Your task to perform on an android device: set default search engine in the chrome app Image 0: 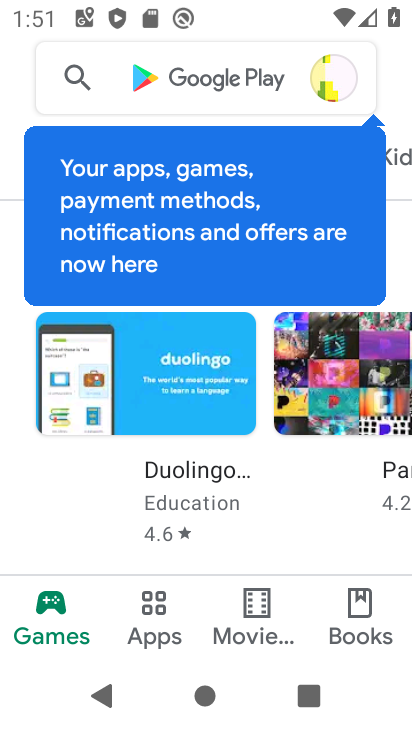
Step 0: press home button
Your task to perform on an android device: set default search engine in the chrome app Image 1: 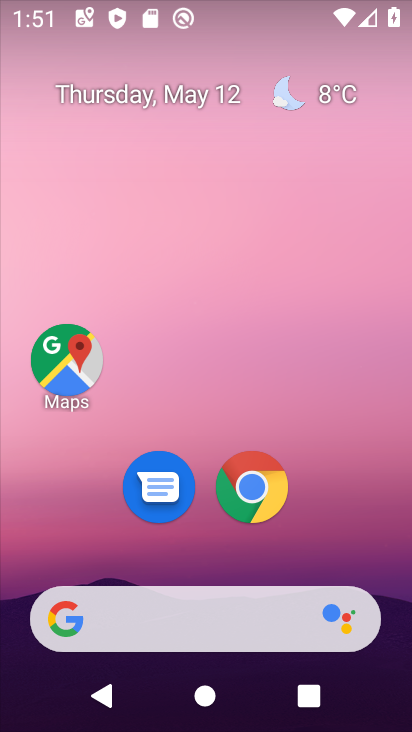
Step 1: click (252, 487)
Your task to perform on an android device: set default search engine in the chrome app Image 2: 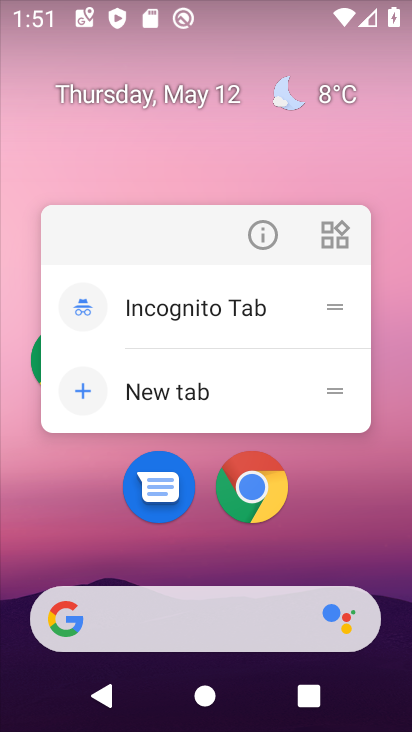
Step 2: click (250, 486)
Your task to perform on an android device: set default search engine in the chrome app Image 3: 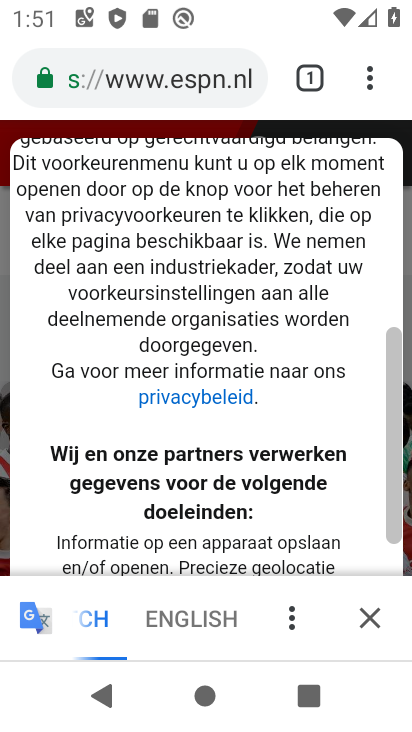
Step 3: click (360, 86)
Your task to perform on an android device: set default search engine in the chrome app Image 4: 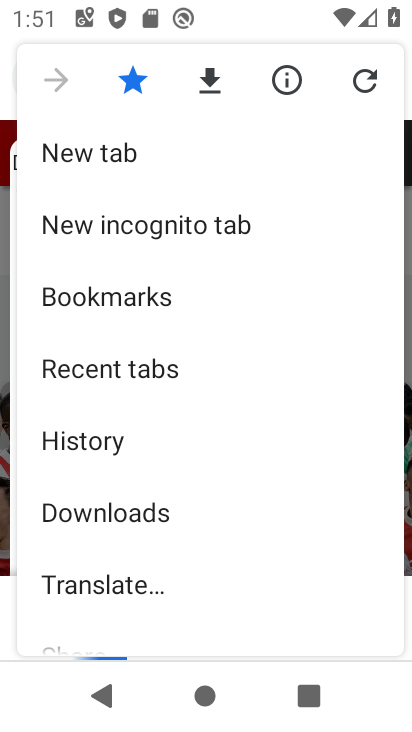
Step 4: drag from (190, 536) to (183, 142)
Your task to perform on an android device: set default search engine in the chrome app Image 5: 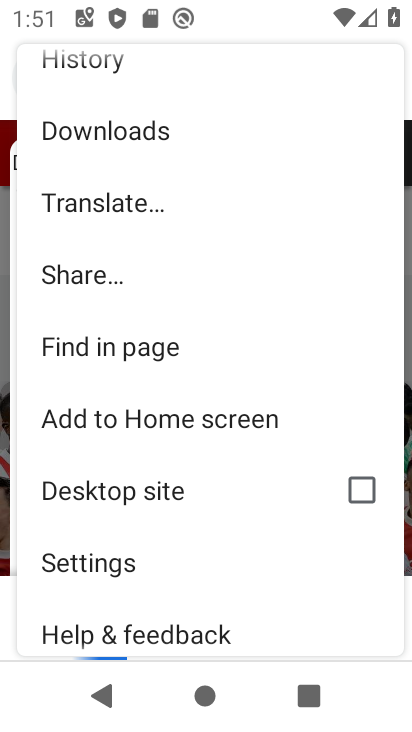
Step 5: click (185, 574)
Your task to perform on an android device: set default search engine in the chrome app Image 6: 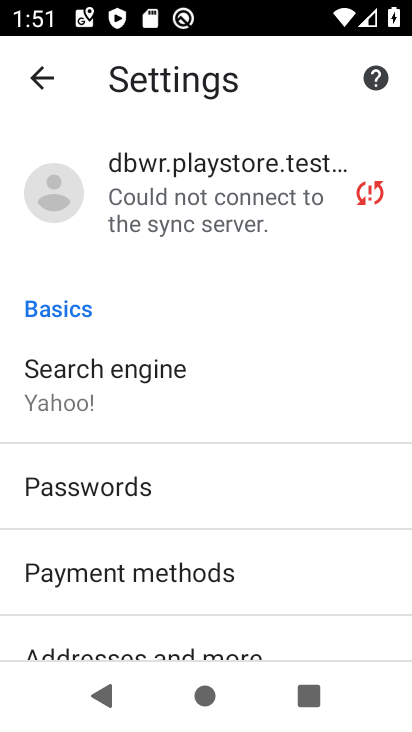
Step 6: click (147, 396)
Your task to perform on an android device: set default search engine in the chrome app Image 7: 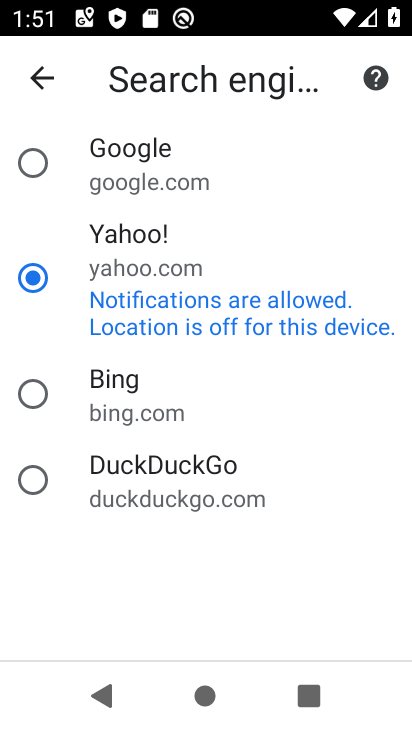
Step 7: click (143, 148)
Your task to perform on an android device: set default search engine in the chrome app Image 8: 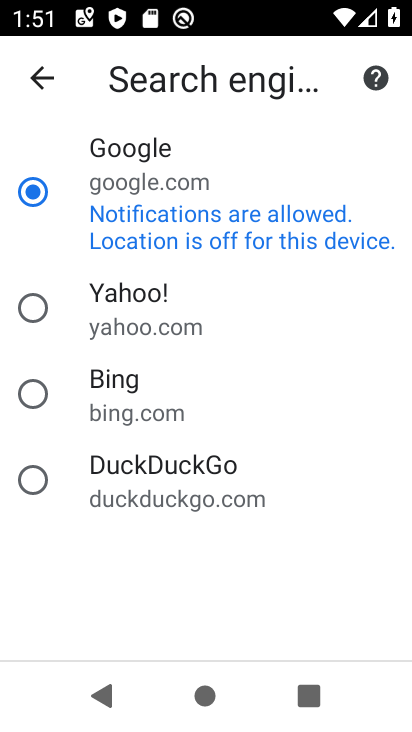
Step 8: task complete